Your task to perform on an android device: turn off wifi Image 0: 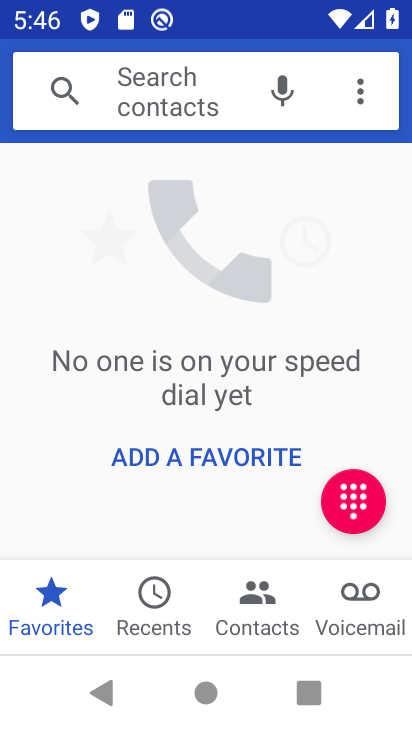
Step 0: press home button
Your task to perform on an android device: turn off wifi Image 1: 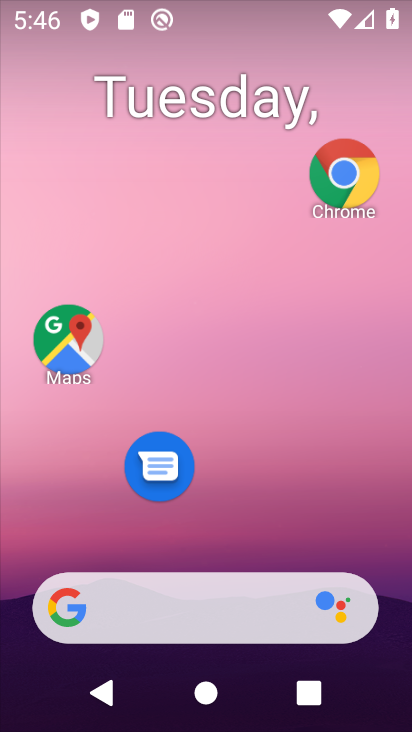
Step 1: drag from (219, 6) to (266, 568)
Your task to perform on an android device: turn off wifi Image 2: 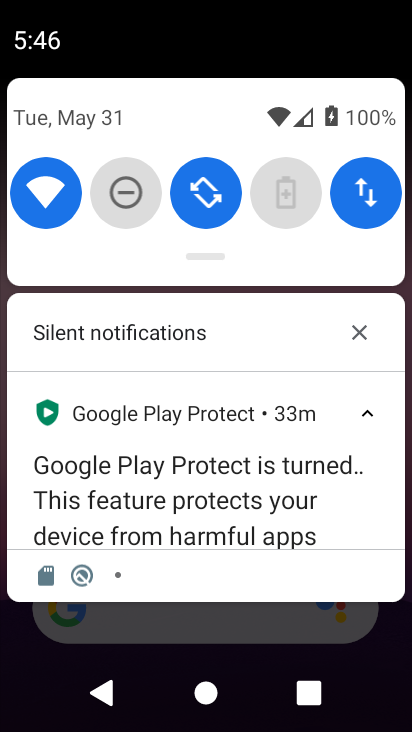
Step 2: click (39, 205)
Your task to perform on an android device: turn off wifi Image 3: 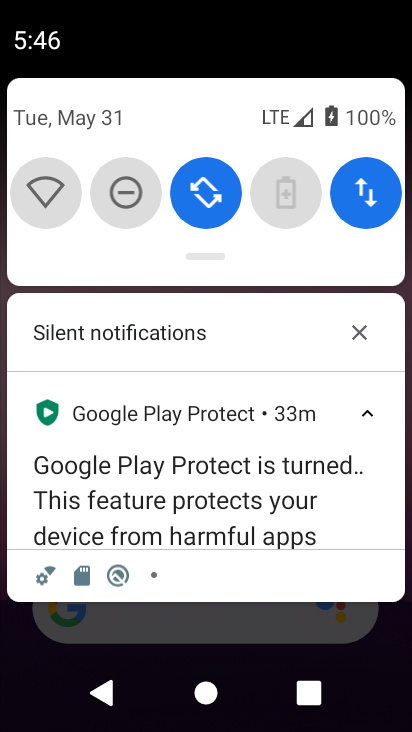
Step 3: task complete